Your task to perform on an android device: Open the phone app and click the voicemail tab. Image 0: 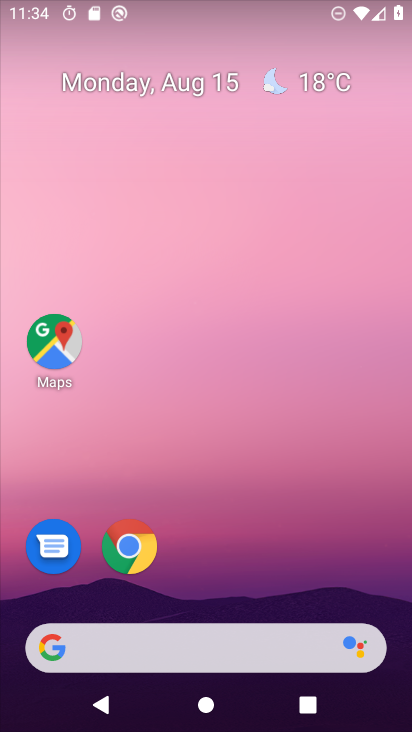
Step 0: drag from (212, 547) to (181, 94)
Your task to perform on an android device: Open the phone app and click the voicemail tab. Image 1: 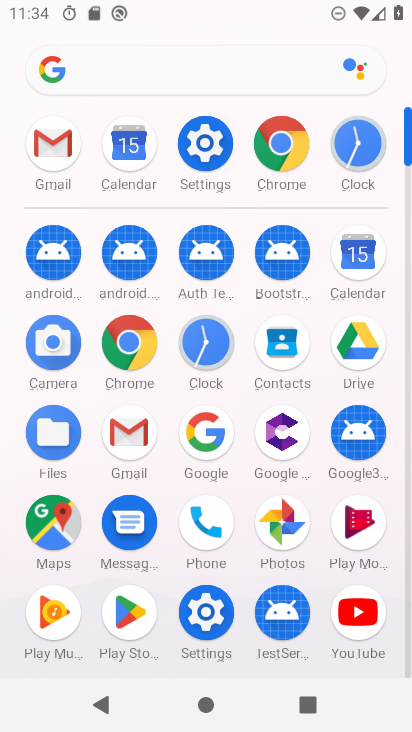
Step 1: click (201, 521)
Your task to perform on an android device: Open the phone app and click the voicemail tab. Image 2: 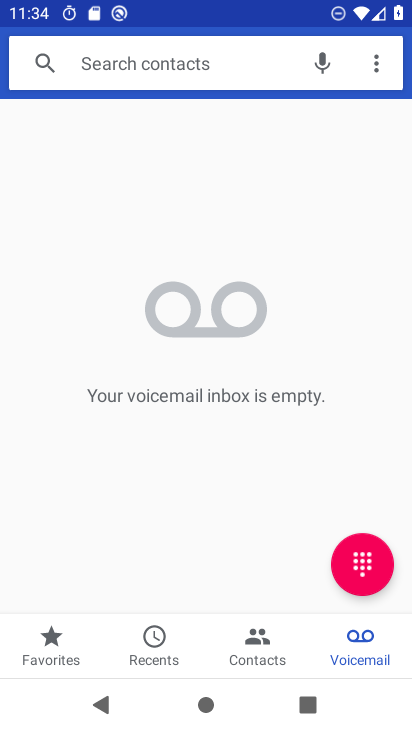
Step 2: task complete